Your task to perform on an android device: When is my next appointment? Image 0: 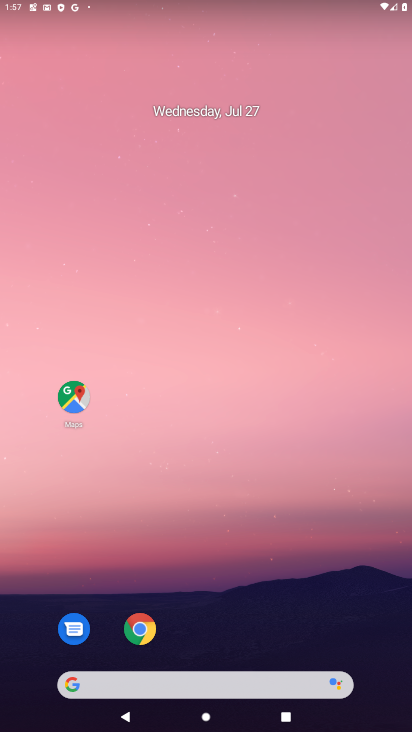
Step 0: drag from (298, 647) to (183, 48)
Your task to perform on an android device: When is my next appointment? Image 1: 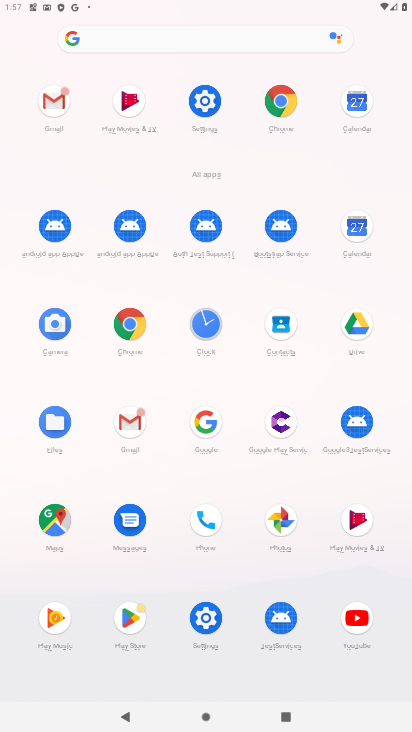
Step 1: click (334, 106)
Your task to perform on an android device: When is my next appointment? Image 2: 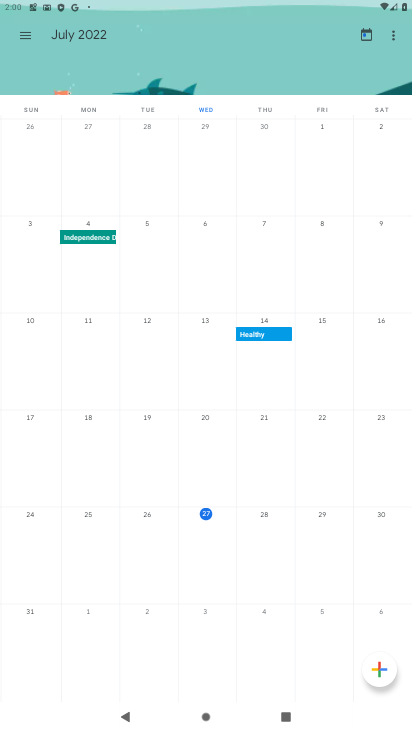
Step 2: task complete